Your task to perform on an android device: Do I have any events tomorrow? Image 0: 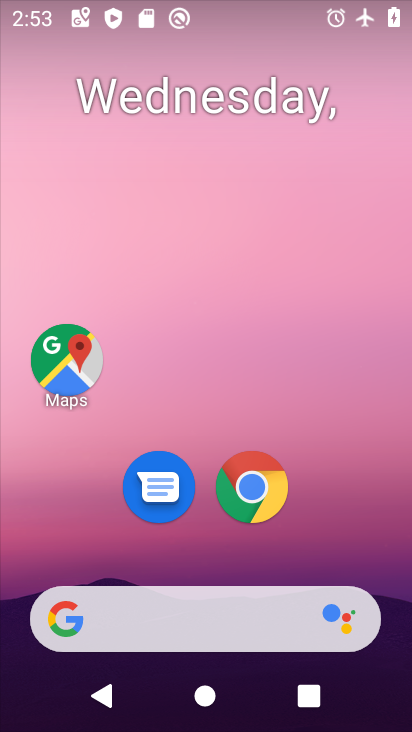
Step 0: drag from (365, 547) to (365, 224)
Your task to perform on an android device: Do I have any events tomorrow? Image 1: 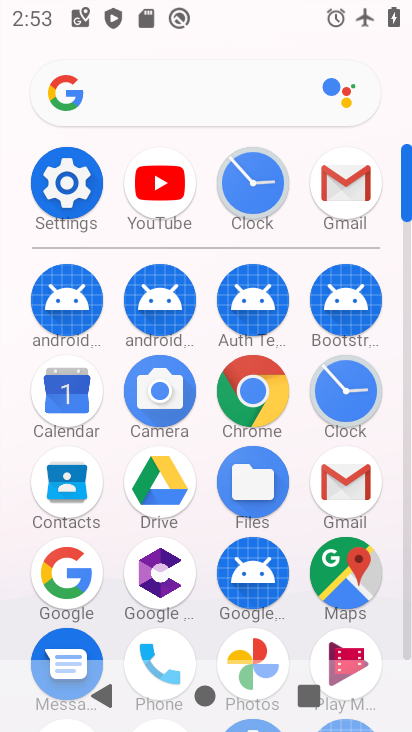
Step 1: click (85, 419)
Your task to perform on an android device: Do I have any events tomorrow? Image 2: 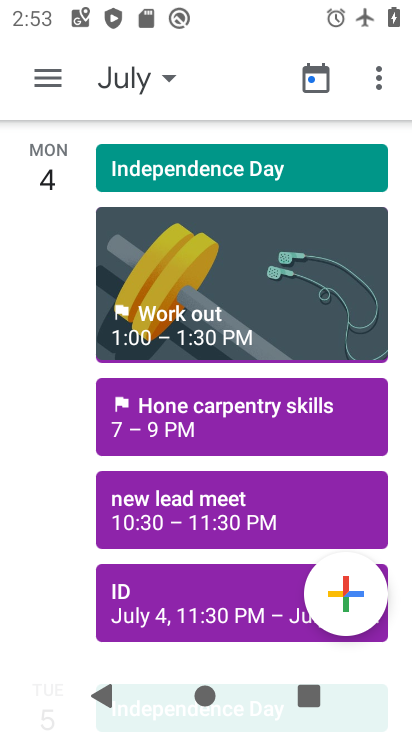
Step 2: drag from (224, 181) to (229, 366)
Your task to perform on an android device: Do I have any events tomorrow? Image 3: 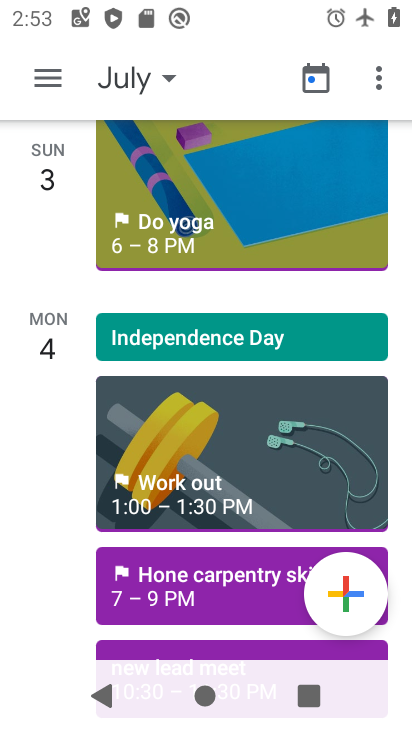
Step 3: click (168, 78)
Your task to perform on an android device: Do I have any events tomorrow? Image 4: 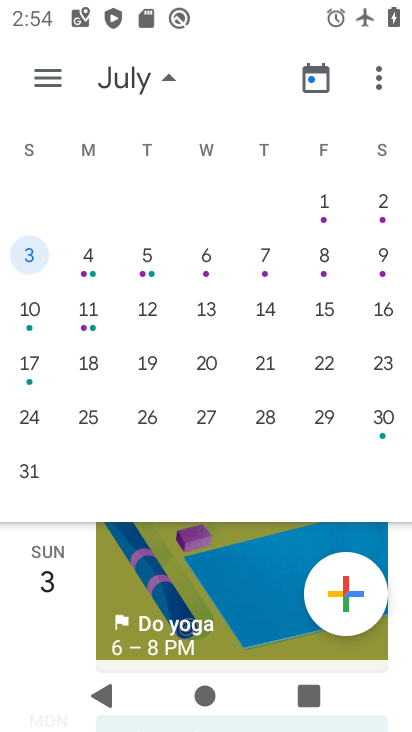
Step 4: click (15, 181)
Your task to perform on an android device: Do I have any events tomorrow? Image 5: 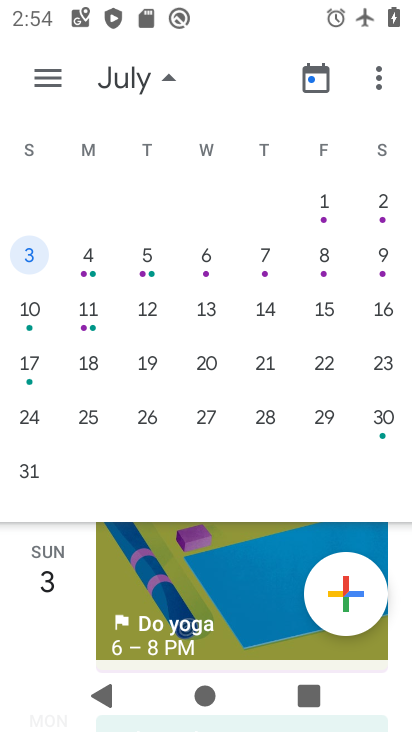
Step 5: drag from (124, 292) to (403, 252)
Your task to perform on an android device: Do I have any events tomorrow? Image 6: 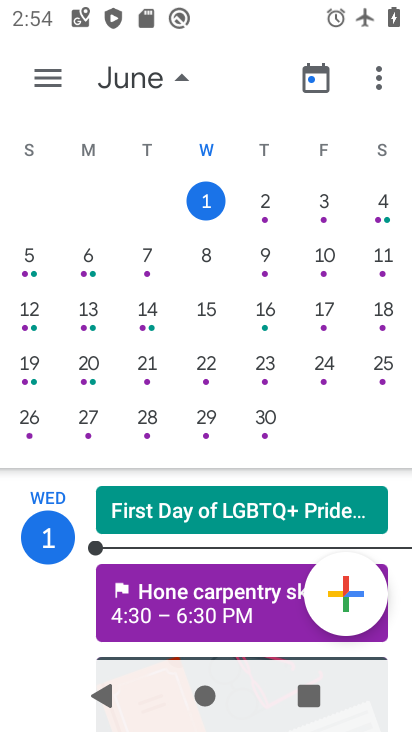
Step 6: click (263, 198)
Your task to perform on an android device: Do I have any events tomorrow? Image 7: 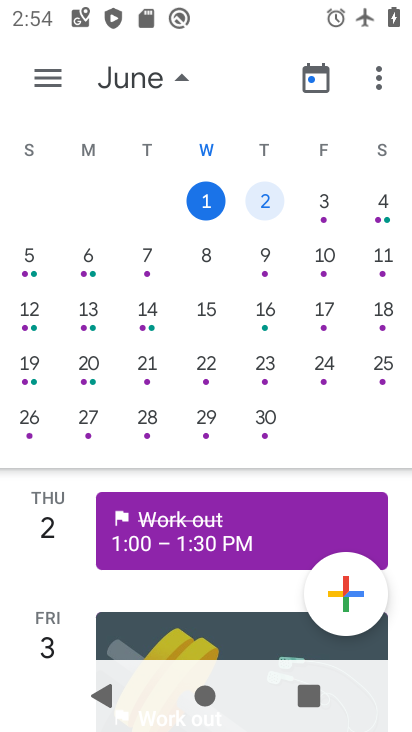
Step 7: click (222, 528)
Your task to perform on an android device: Do I have any events tomorrow? Image 8: 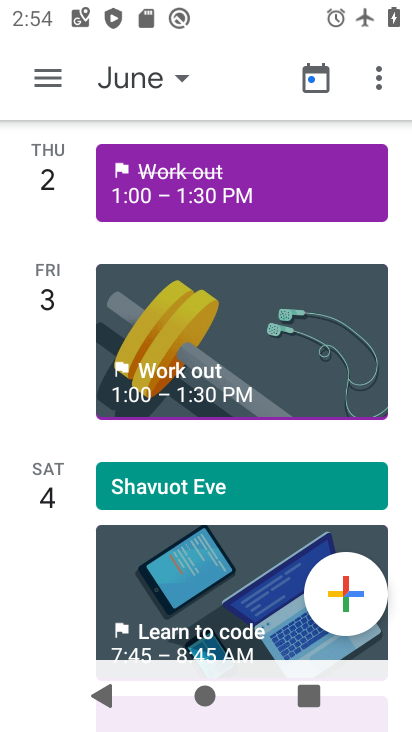
Step 8: task complete